Your task to perform on an android device: Open the map Image 0: 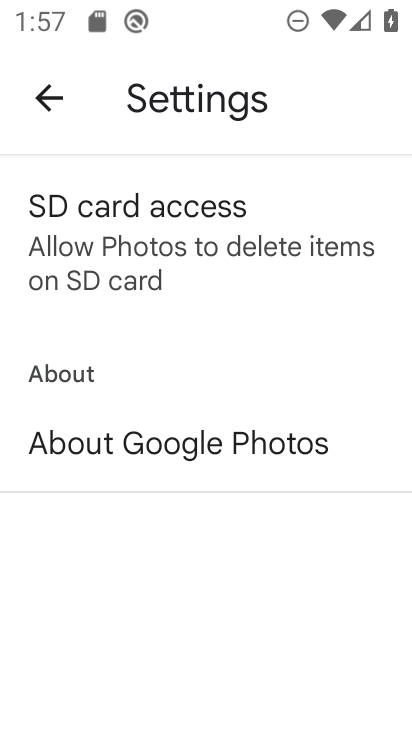
Step 0: press home button
Your task to perform on an android device: Open the map Image 1: 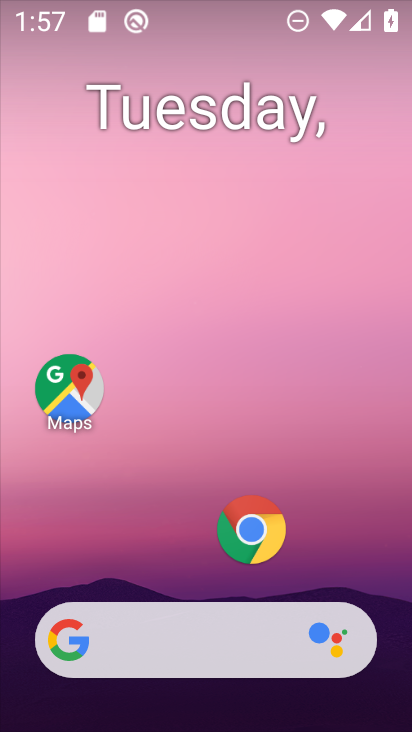
Step 1: click (73, 383)
Your task to perform on an android device: Open the map Image 2: 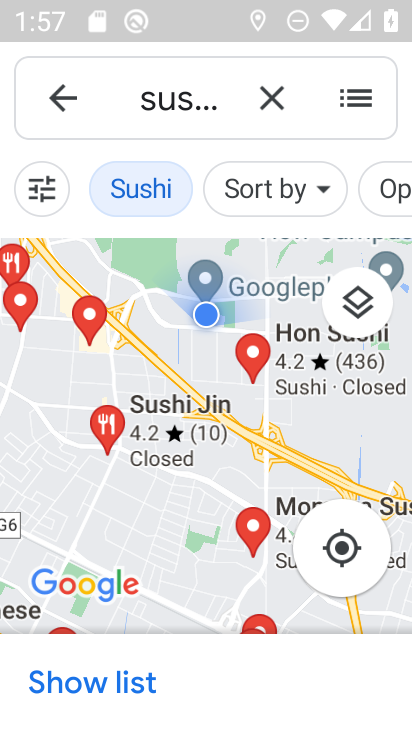
Step 2: click (270, 90)
Your task to perform on an android device: Open the map Image 3: 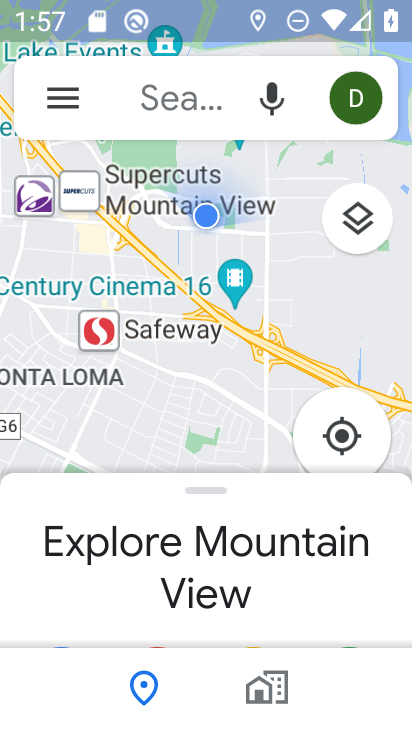
Step 3: click (193, 89)
Your task to perform on an android device: Open the map Image 4: 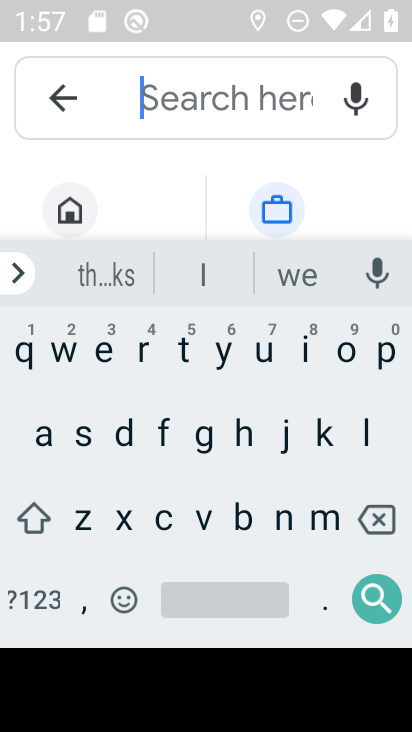
Step 4: click (54, 88)
Your task to perform on an android device: Open the map Image 5: 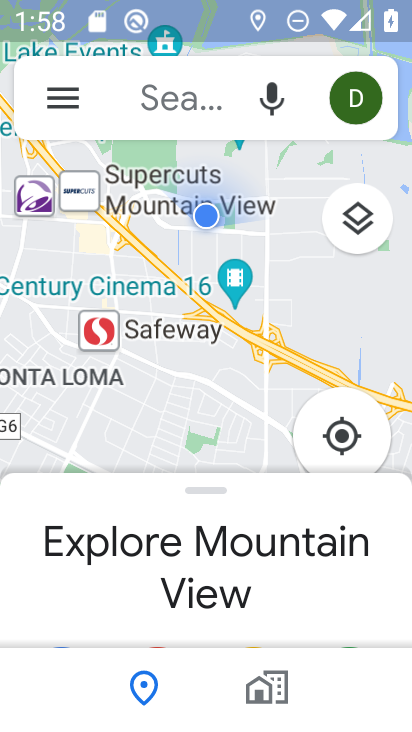
Step 5: task complete